Your task to perform on an android device: all mails in gmail Image 0: 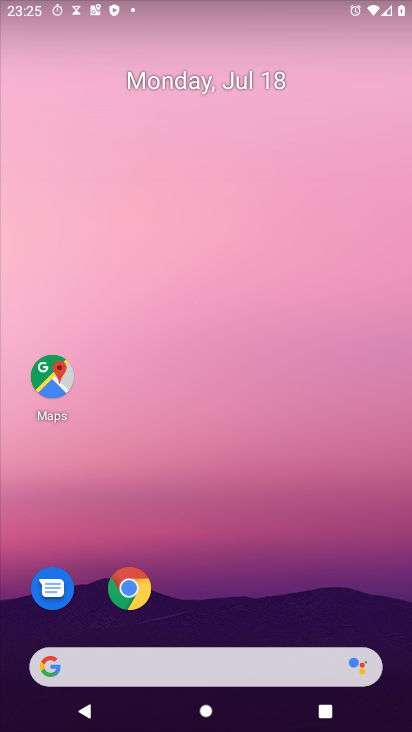
Step 0: drag from (188, 664) to (343, 210)
Your task to perform on an android device: all mails in gmail Image 1: 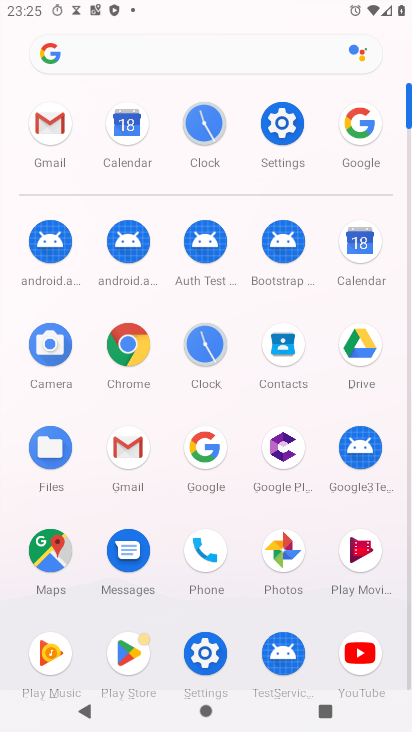
Step 1: click (125, 453)
Your task to perform on an android device: all mails in gmail Image 2: 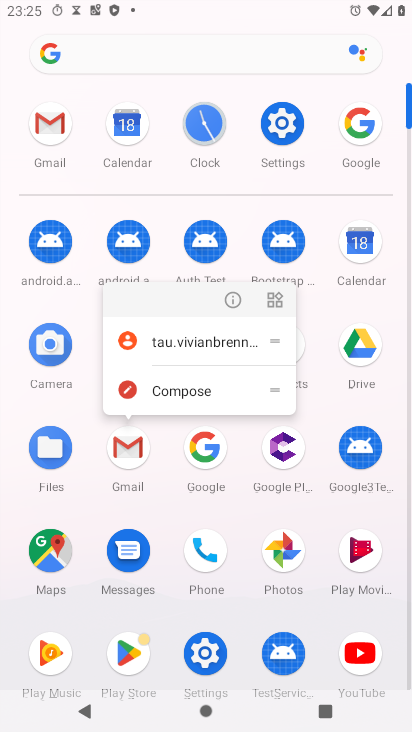
Step 2: click (125, 453)
Your task to perform on an android device: all mails in gmail Image 3: 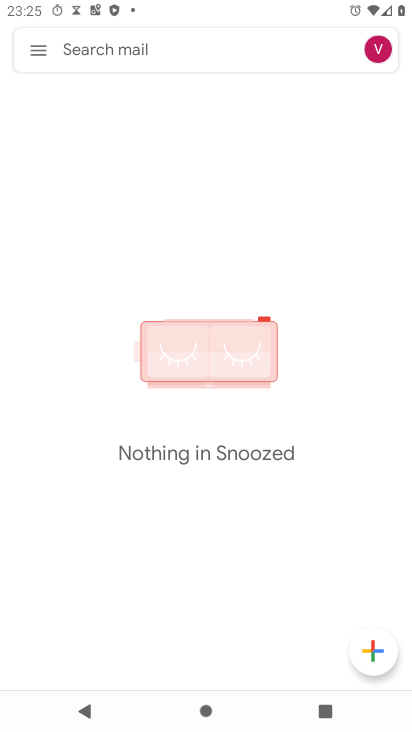
Step 3: click (44, 50)
Your task to perform on an android device: all mails in gmail Image 4: 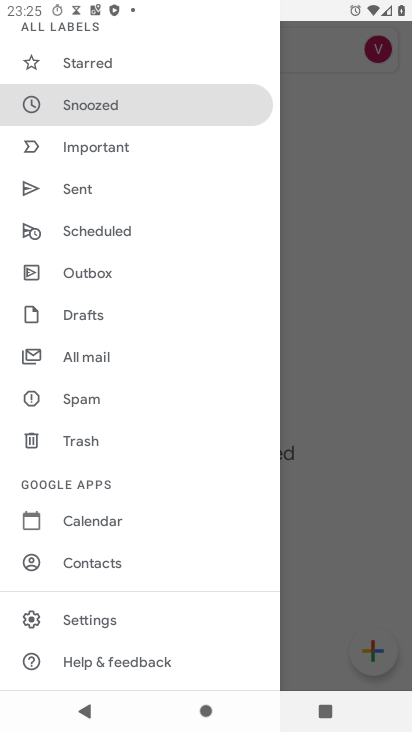
Step 4: click (90, 362)
Your task to perform on an android device: all mails in gmail Image 5: 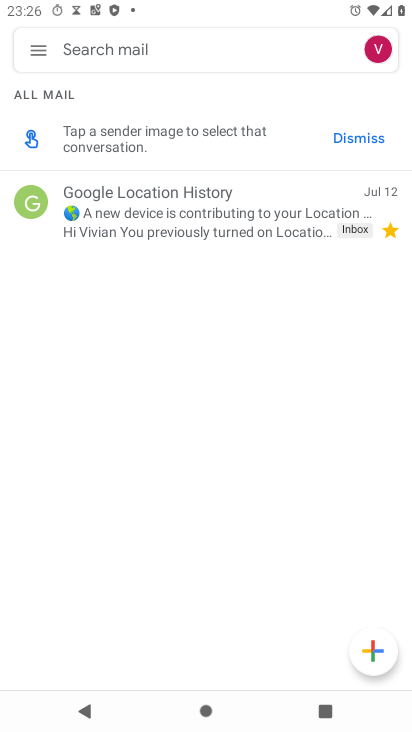
Step 5: task complete